Your task to perform on an android device: allow notifications from all sites in the chrome app Image 0: 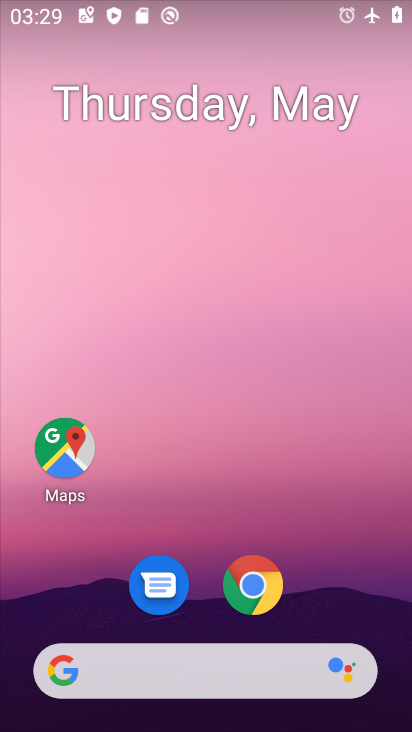
Step 0: click (258, 587)
Your task to perform on an android device: allow notifications from all sites in the chrome app Image 1: 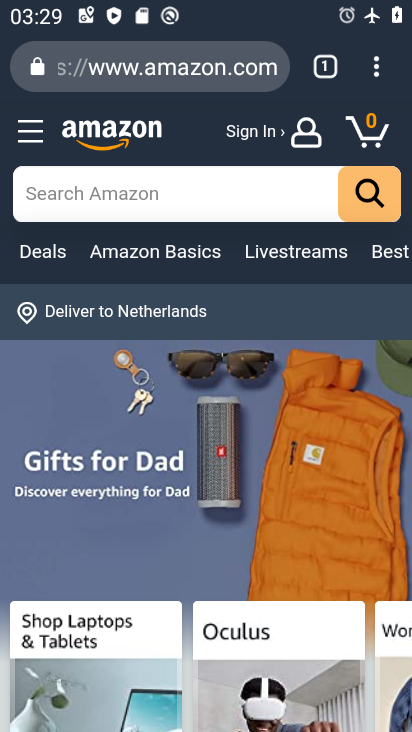
Step 1: click (376, 64)
Your task to perform on an android device: allow notifications from all sites in the chrome app Image 2: 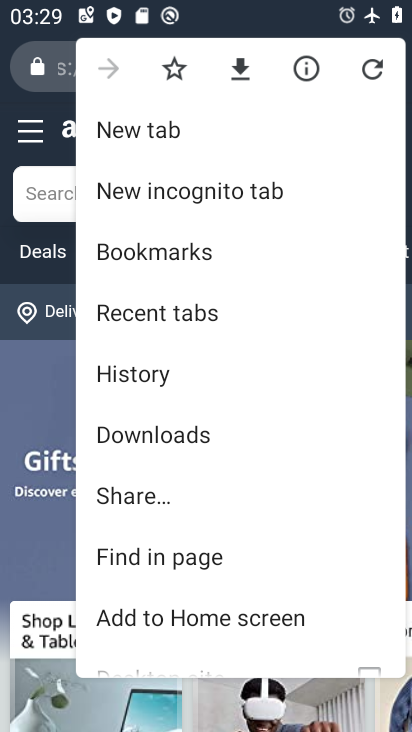
Step 2: drag from (236, 510) to (237, 233)
Your task to perform on an android device: allow notifications from all sites in the chrome app Image 3: 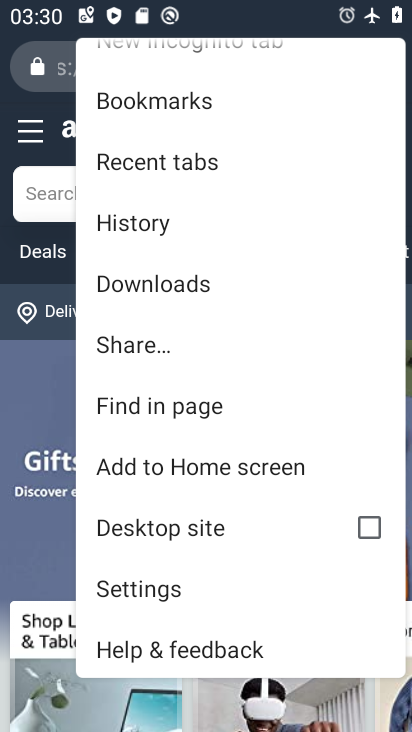
Step 3: click (151, 594)
Your task to perform on an android device: allow notifications from all sites in the chrome app Image 4: 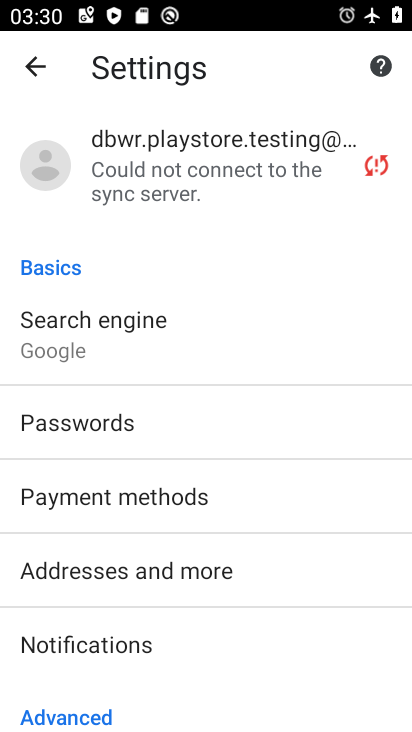
Step 4: click (148, 645)
Your task to perform on an android device: allow notifications from all sites in the chrome app Image 5: 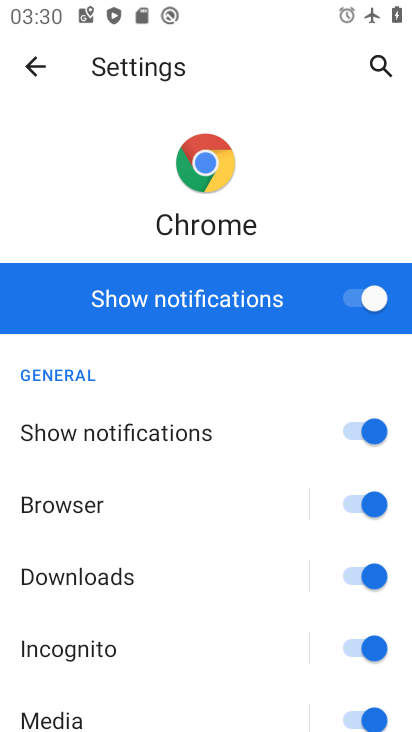
Step 5: task complete